Your task to perform on an android device: turn off translation in the chrome app Image 0: 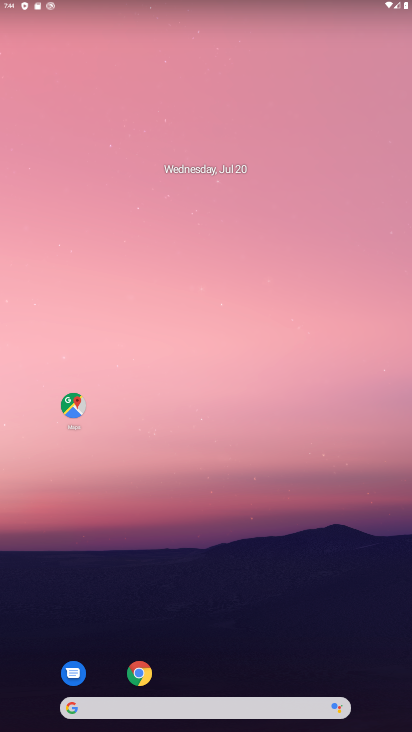
Step 0: drag from (164, 617) to (262, 179)
Your task to perform on an android device: turn off translation in the chrome app Image 1: 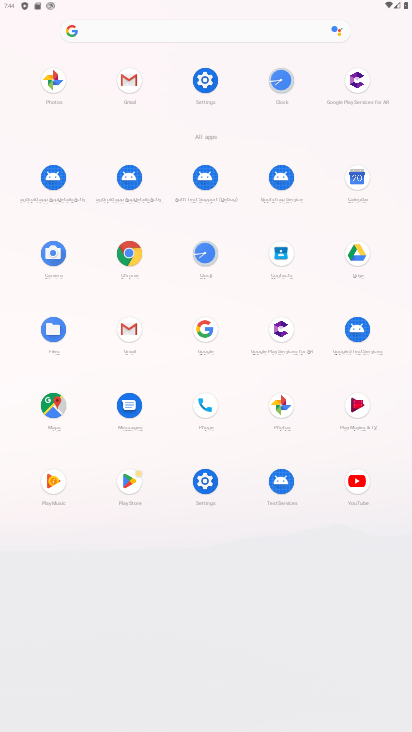
Step 1: click (127, 247)
Your task to perform on an android device: turn off translation in the chrome app Image 2: 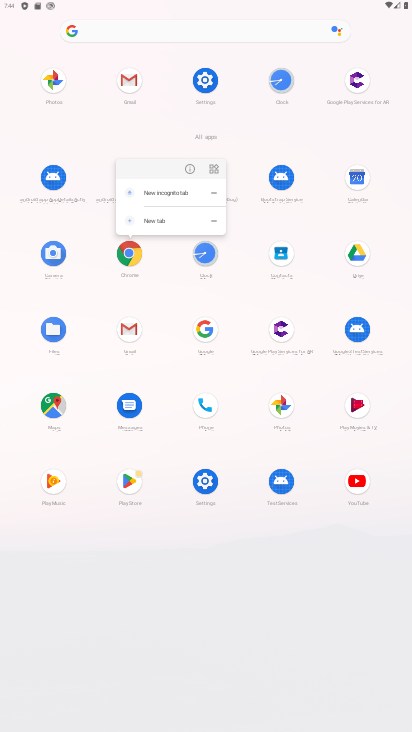
Step 2: click (187, 165)
Your task to perform on an android device: turn off translation in the chrome app Image 3: 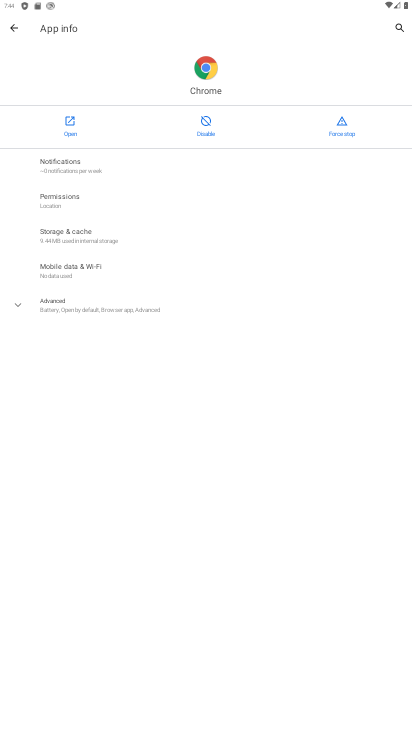
Step 3: click (67, 122)
Your task to perform on an android device: turn off translation in the chrome app Image 4: 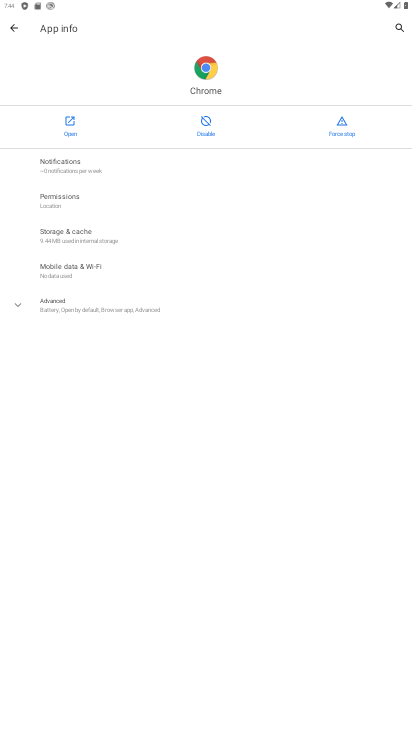
Step 4: click (72, 118)
Your task to perform on an android device: turn off translation in the chrome app Image 5: 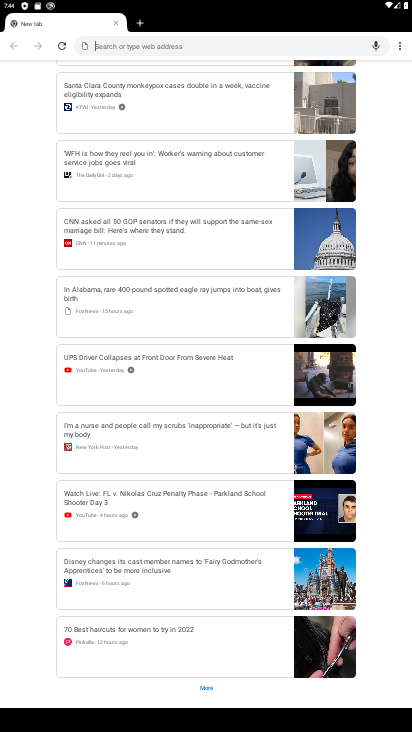
Step 5: drag from (400, 49) to (317, 210)
Your task to perform on an android device: turn off translation in the chrome app Image 6: 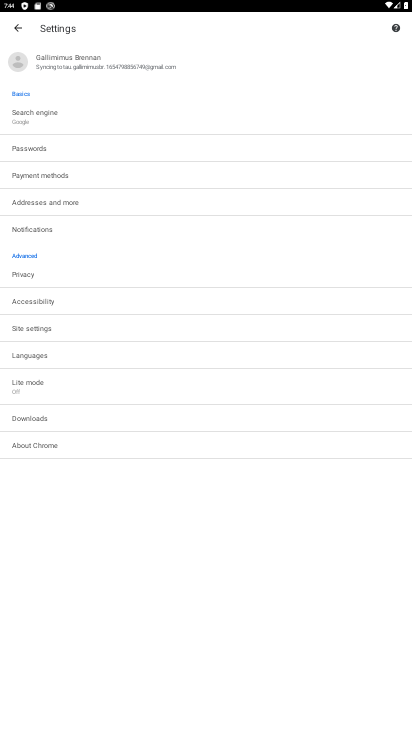
Step 6: click (67, 352)
Your task to perform on an android device: turn off translation in the chrome app Image 7: 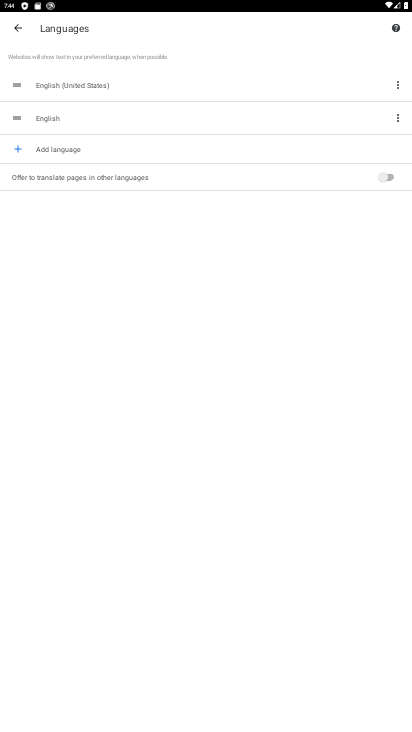
Step 7: task complete